Your task to perform on an android device: turn off location history Image 0: 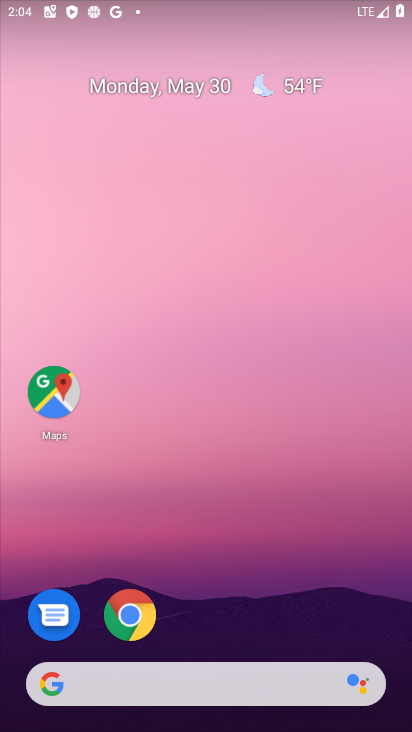
Step 0: drag from (347, 557) to (319, 18)
Your task to perform on an android device: turn off location history Image 1: 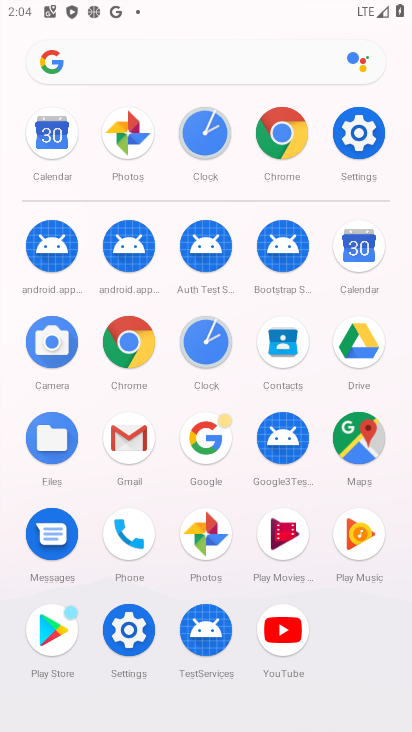
Step 1: click (131, 630)
Your task to perform on an android device: turn off location history Image 2: 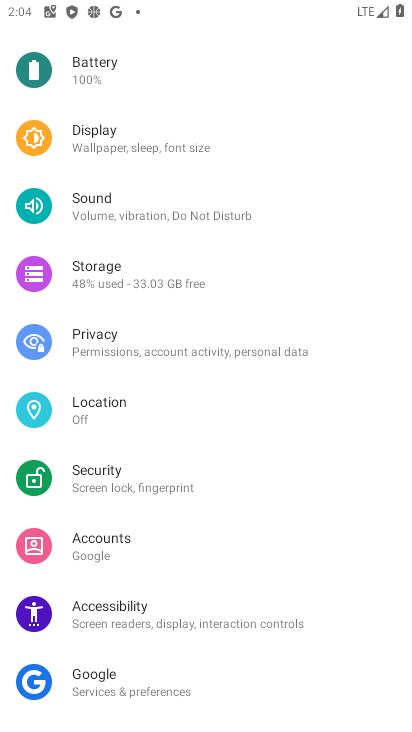
Step 2: click (181, 408)
Your task to perform on an android device: turn off location history Image 3: 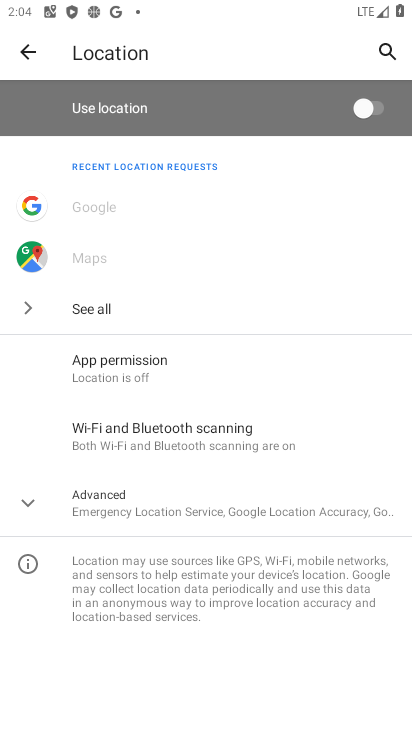
Step 3: click (188, 513)
Your task to perform on an android device: turn off location history Image 4: 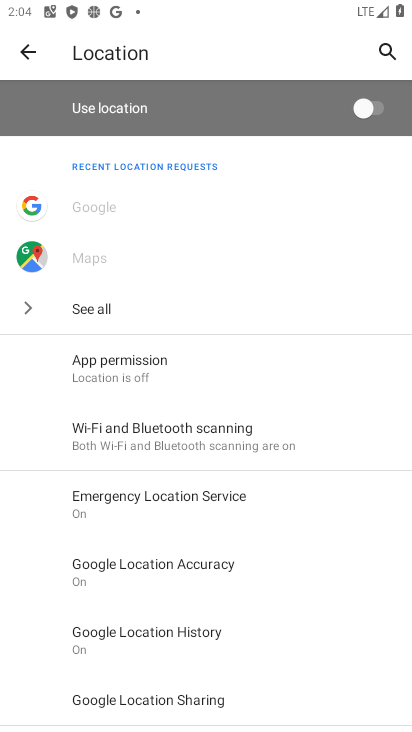
Step 4: click (192, 633)
Your task to perform on an android device: turn off location history Image 5: 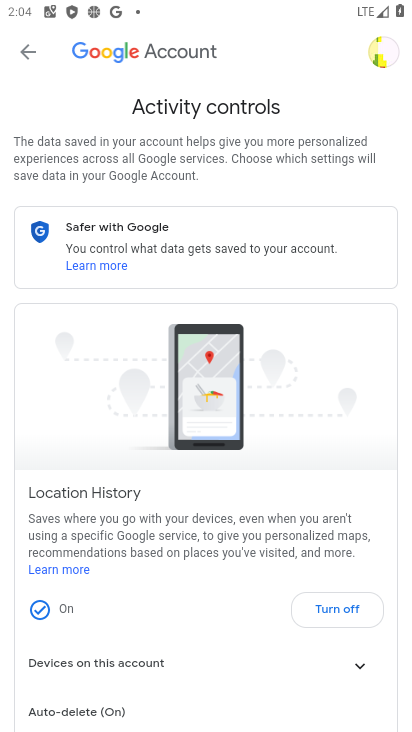
Step 5: click (325, 610)
Your task to perform on an android device: turn off location history Image 6: 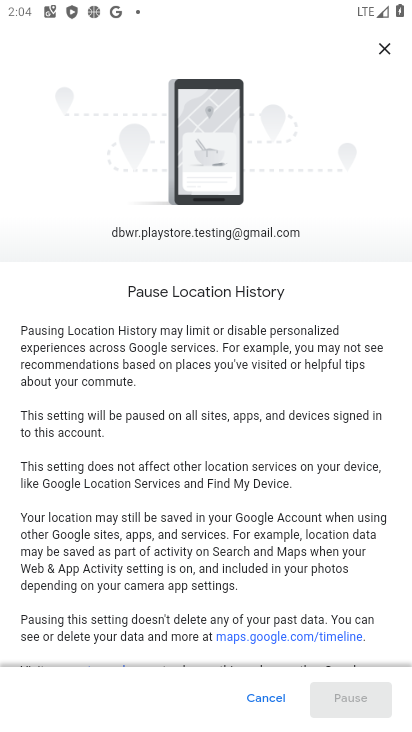
Step 6: drag from (296, 631) to (262, 246)
Your task to perform on an android device: turn off location history Image 7: 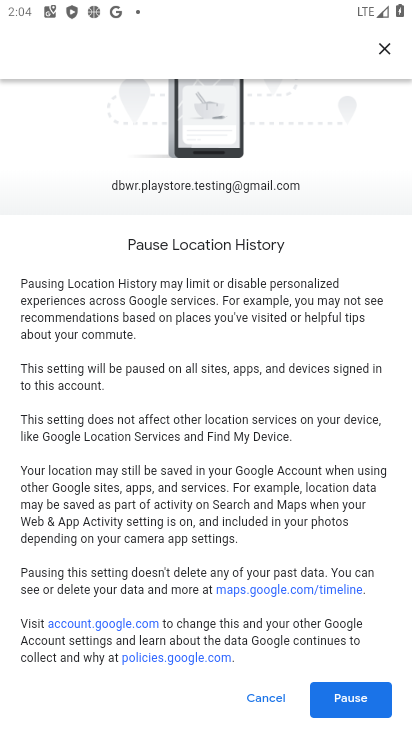
Step 7: click (343, 704)
Your task to perform on an android device: turn off location history Image 8: 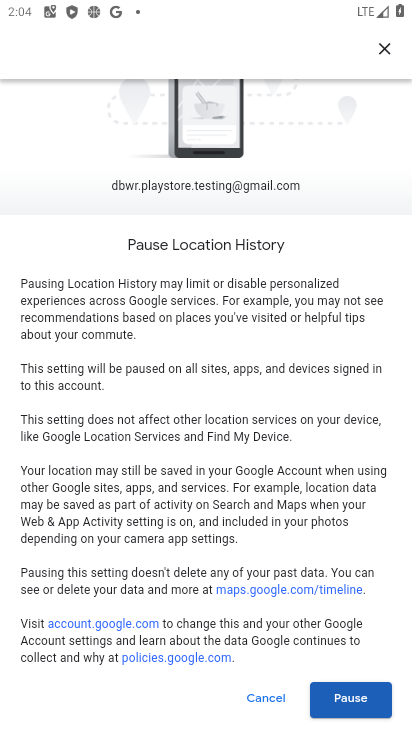
Step 8: click (351, 700)
Your task to perform on an android device: turn off location history Image 9: 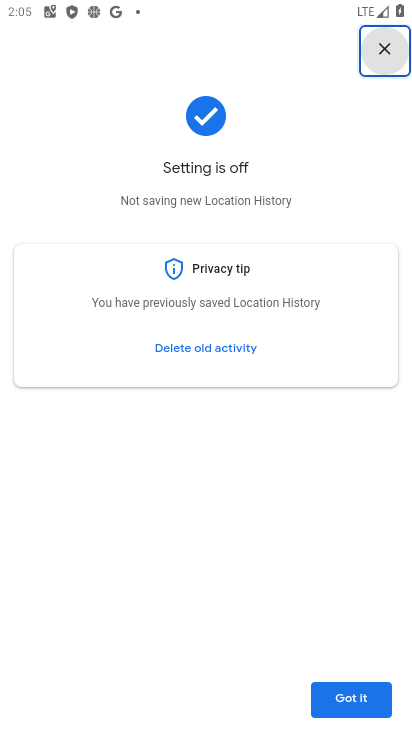
Step 9: click (351, 700)
Your task to perform on an android device: turn off location history Image 10: 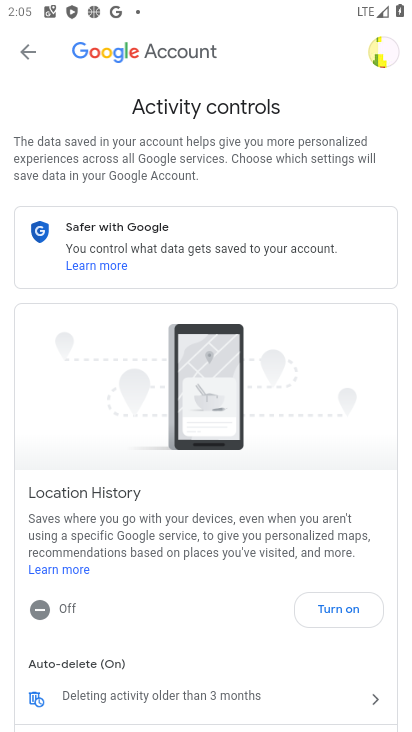
Step 10: task complete